Your task to perform on an android device: change the clock style Image 0: 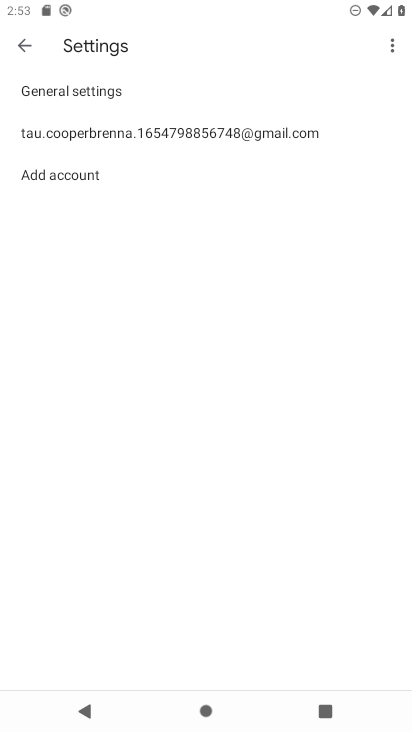
Step 0: press home button
Your task to perform on an android device: change the clock style Image 1: 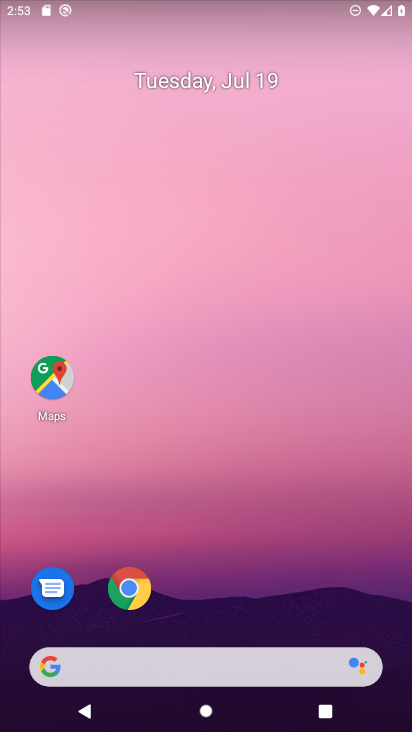
Step 1: drag from (197, 551) to (180, 245)
Your task to perform on an android device: change the clock style Image 2: 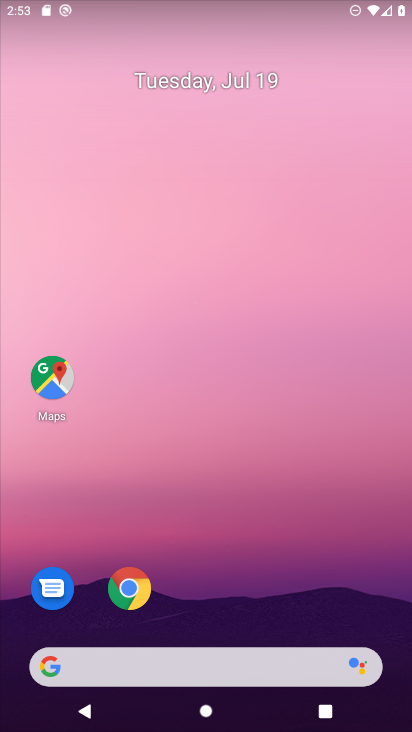
Step 2: drag from (199, 411) to (267, 133)
Your task to perform on an android device: change the clock style Image 3: 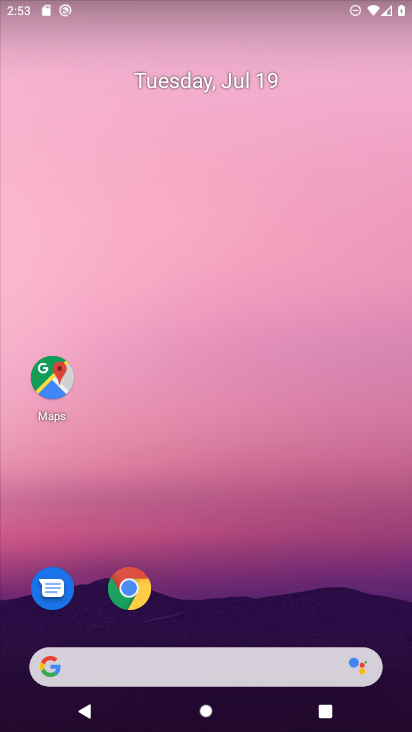
Step 3: drag from (191, 595) to (195, 29)
Your task to perform on an android device: change the clock style Image 4: 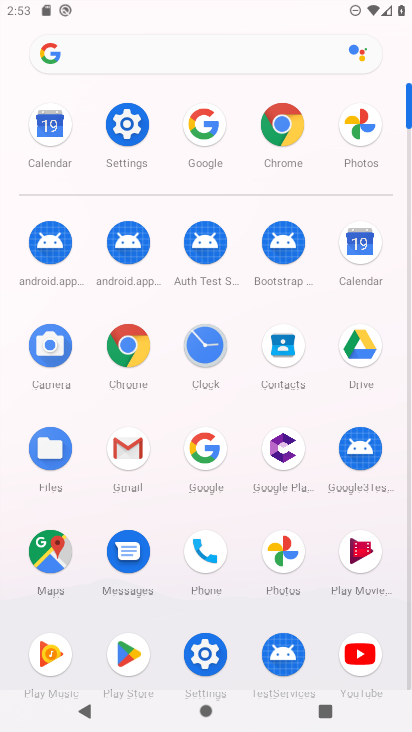
Step 4: click (201, 353)
Your task to perform on an android device: change the clock style Image 5: 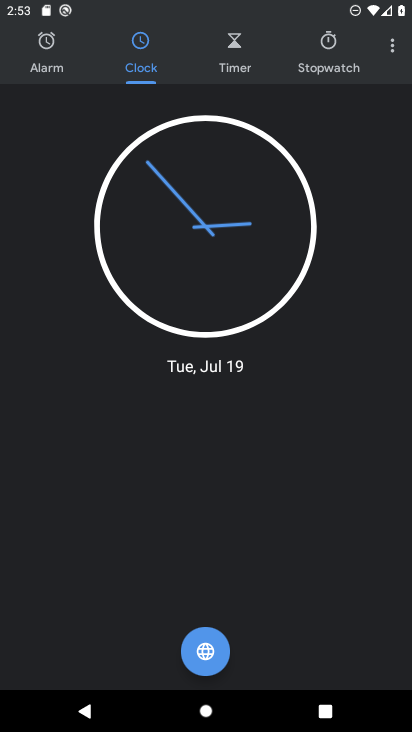
Step 5: click (394, 47)
Your task to perform on an android device: change the clock style Image 6: 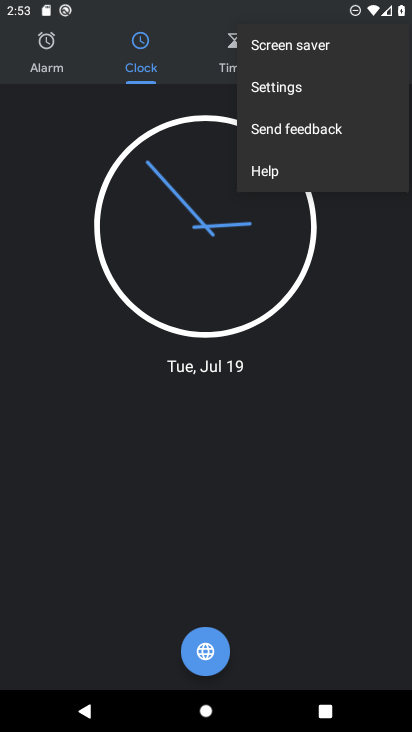
Step 6: click (294, 91)
Your task to perform on an android device: change the clock style Image 7: 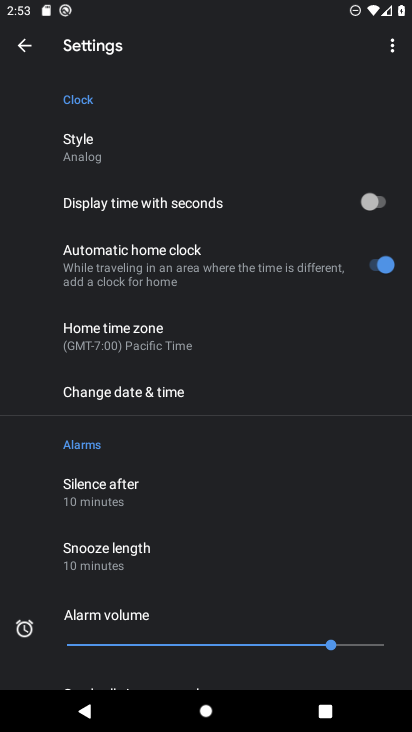
Step 7: click (75, 163)
Your task to perform on an android device: change the clock style Image 8: 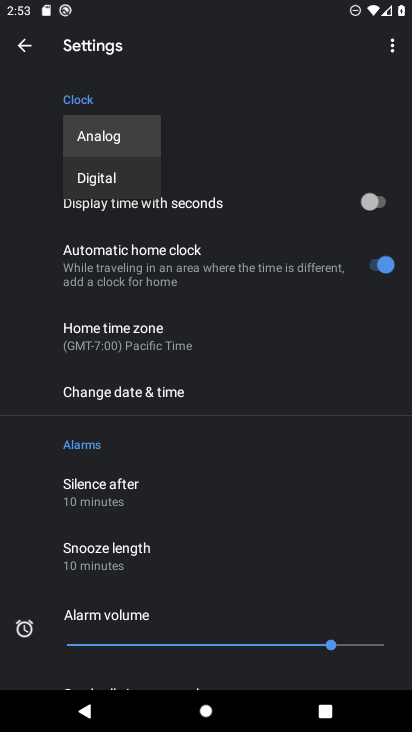
Step 8: click (92, 183)
Your task to perform on an android device: change the clock style Image 9: 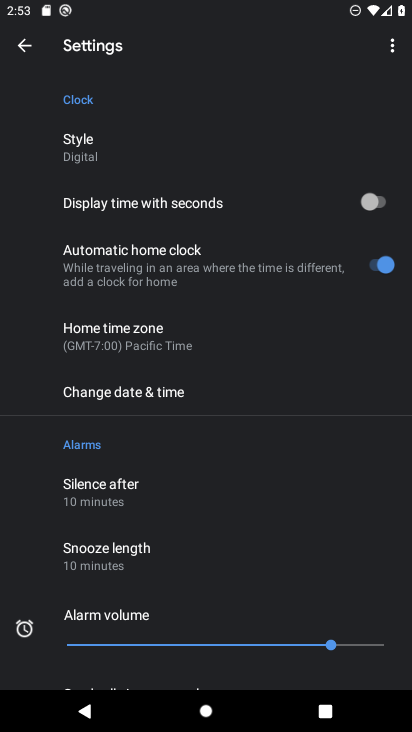
Step 9: task complete